Your task to perform on an android device: Toggle the flashlight Image 0: 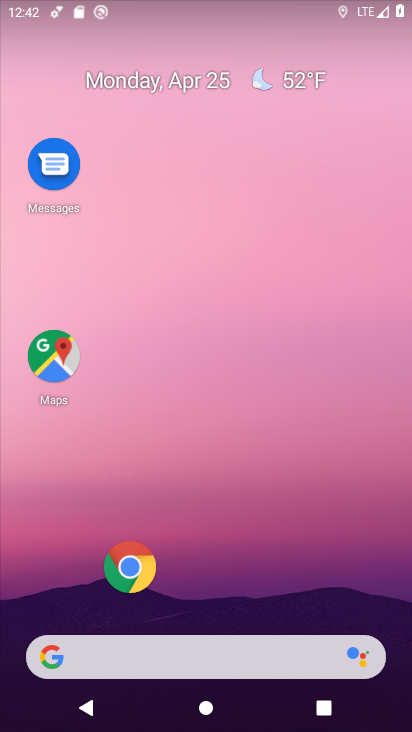
Step 0: drag from (254, 517) to (259, 71)
Your task to perform on an android device: Toggle the flashlight Image 1: 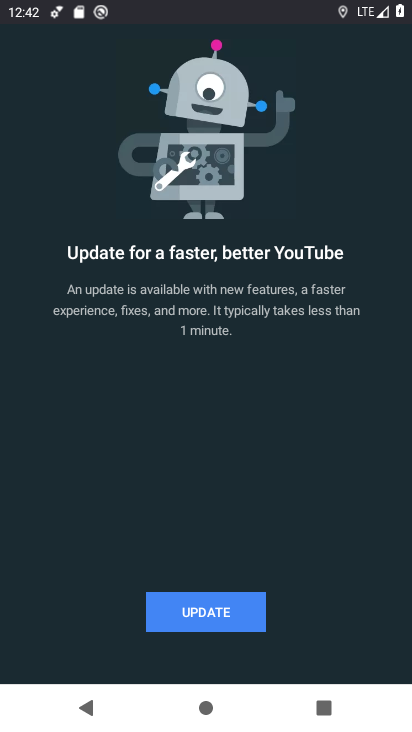
Step 1: task complete